Your task to perform on an android device: turn on the 24-hour format for clock Image 0: 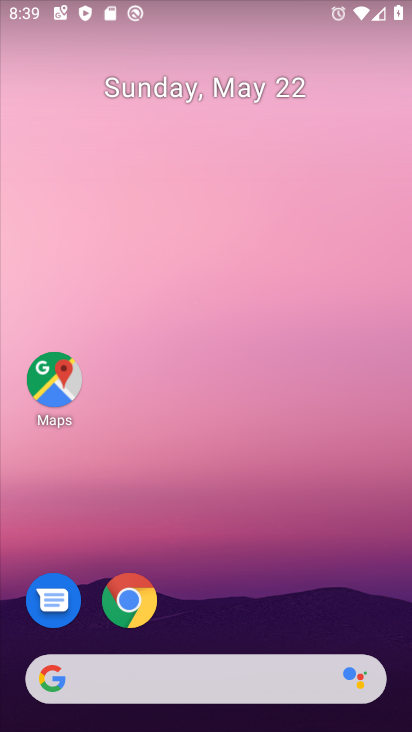
Step 0: drag from (244, 658) to (258, 225)
Your task to perform on an android device: turn on the 24-hour format for clock Image 1: 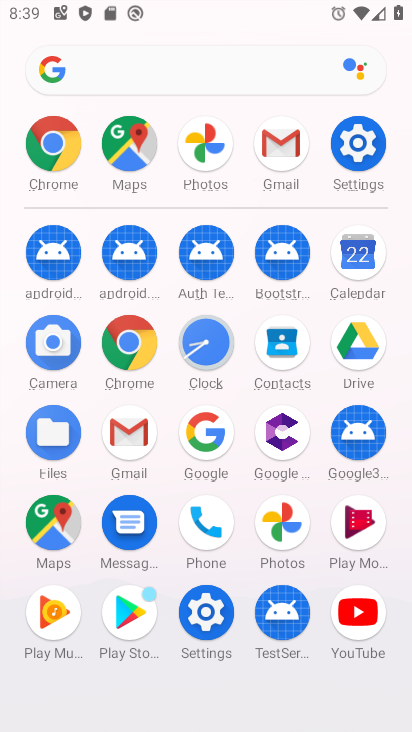
Step 1: click (211, 334)
Your task to perform on an android device: turn on the 24-hour format for clock Image 2: 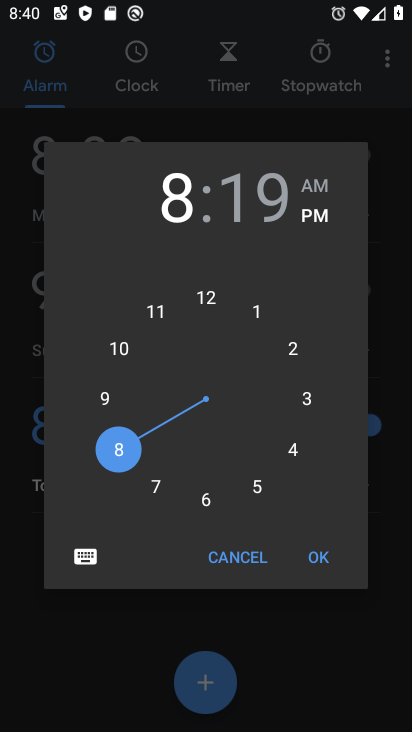
Step 2: click (341, 113)
Your task to perform on an android device: turn on the 24-hour format for clock Image 3: 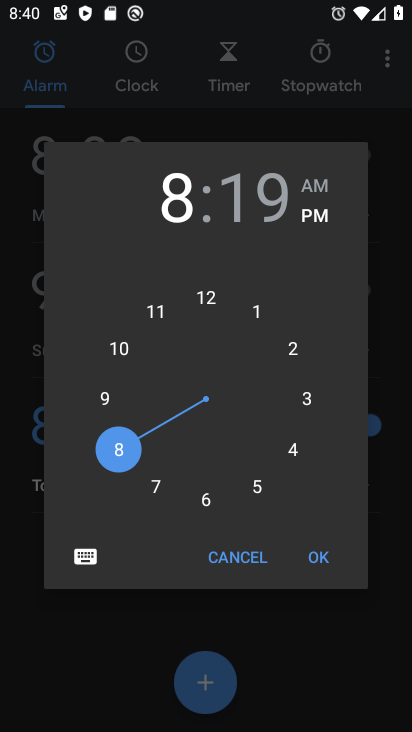
Step 3: click (341, 113)
Your task to perform on an android device: turn on the 24-hour format for clock Image 4: 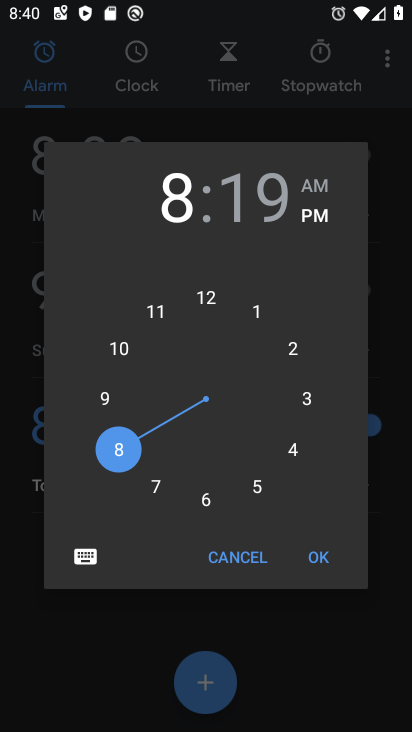
Step 4: click (341, 113)
Your task to perform on an android device: turn on the 24-hour format for clock Image 5: 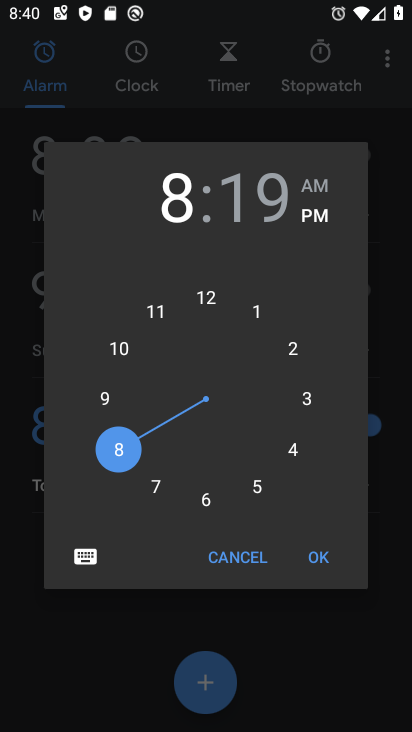
Step 5: click (341, 113)
Your task to perform on an android device: turn on the 24-hour format for clock Image 6: 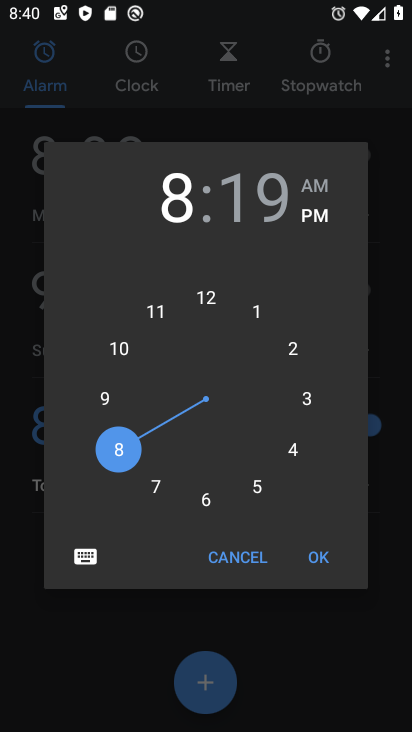
Step 6: click (341, 113)
Your task to perform on an android device: turn on the 24-hour format for clock Image 7: 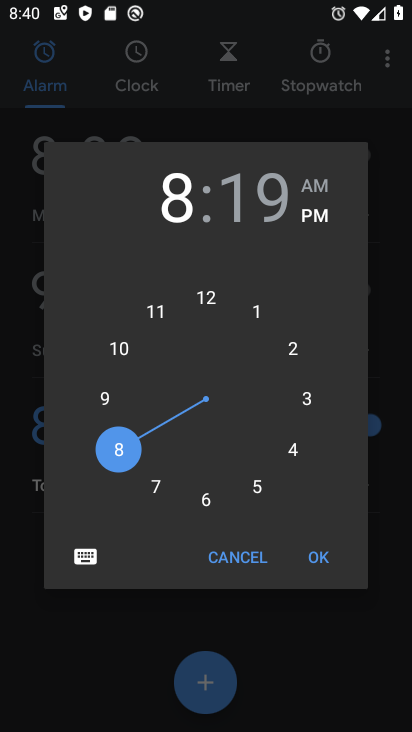
Step 7: click (233, 560)
Your task to perform on an android device: turn on the 24-hour format for clock Image 8: 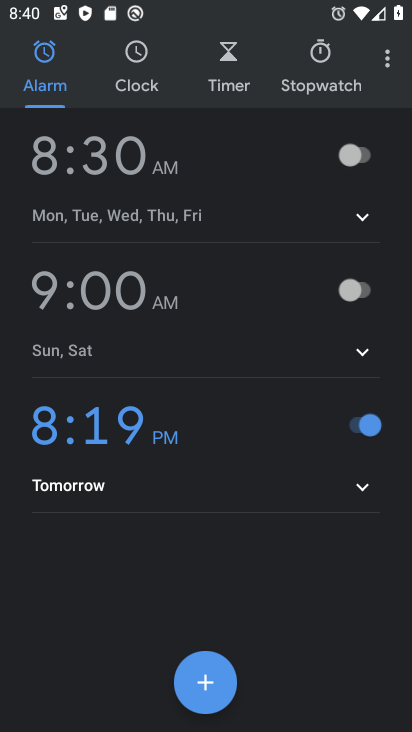
Step 8: click (389, 64)
Your task to perform on an android device: turn on the 24-hour format for clock Image 9: 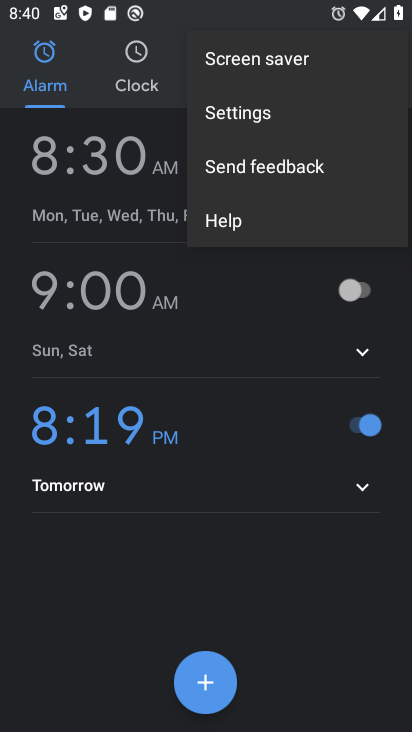
Step 9: click (255, 128)
Your task to perform on an android device: turn on the 24-hour format for clock Image 10: 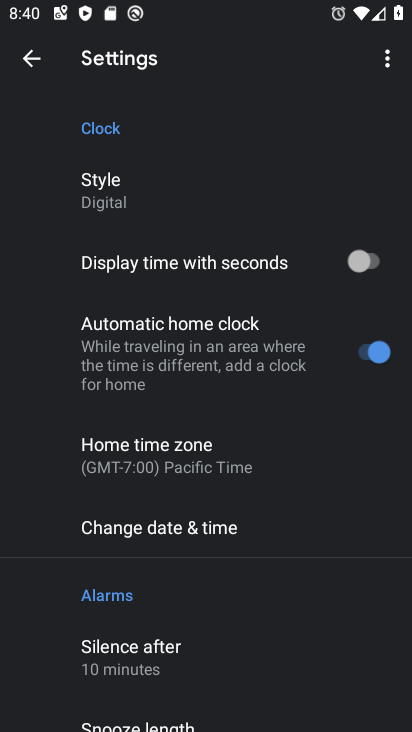
Step 10: click (205, 525)
Your task to perform on an android device: turn on the 24-hour format for clock Image 11: 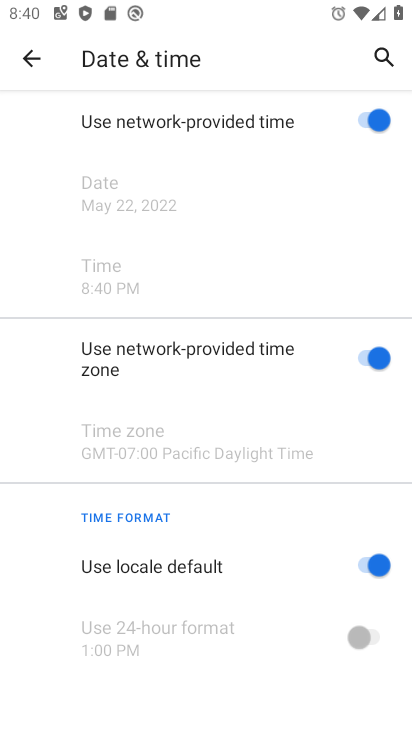
Step 11: task complete